Your task to perform on an android device: change text size in settings app Image 0: 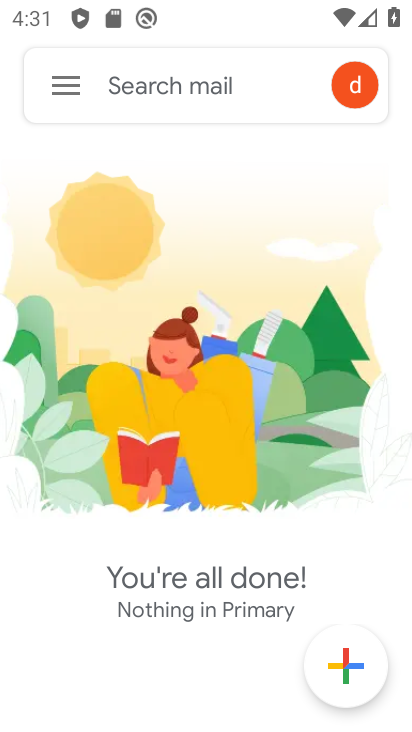
Step 0: press home button
Your task to perform on an android device: change text size in settings app Image 1: 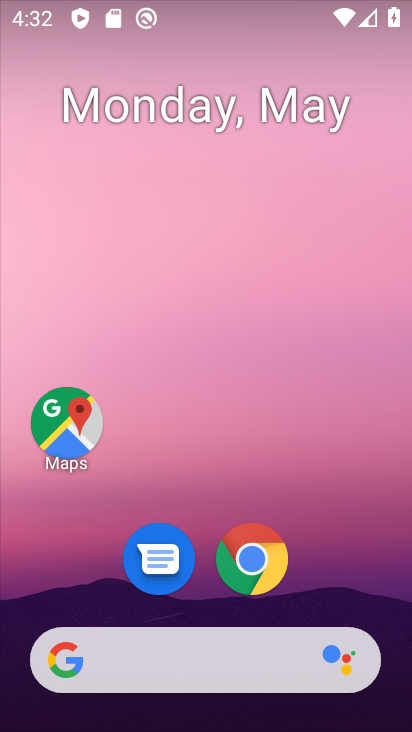
Step 1: drag from (308, 540) to (181, 9)
Your task to perform on an android device: change text size in settings app Image 2: 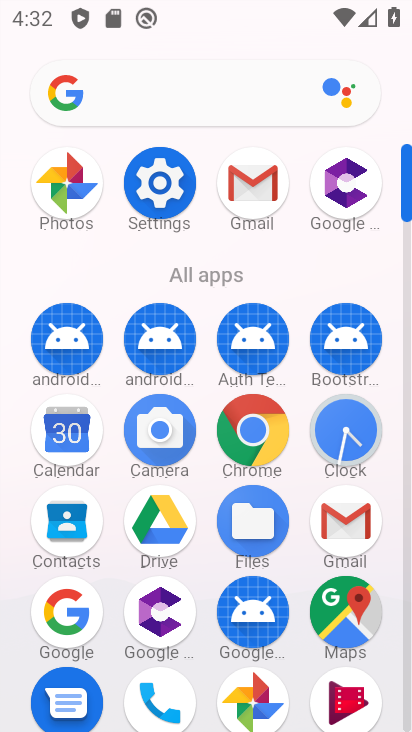
Step 2: click (161, 186)
Your task to perform on an android device: change text size in settings app Image 3: 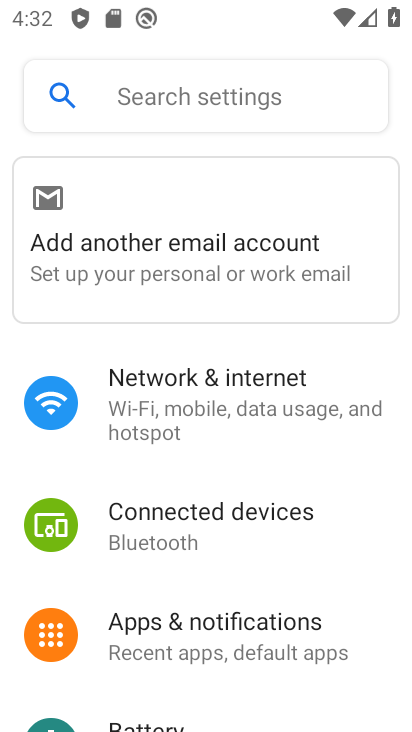
Step 3: drag from (236, 672) to (202, 343)
Your task to perform on an android device: change text size in settings app Image 4: 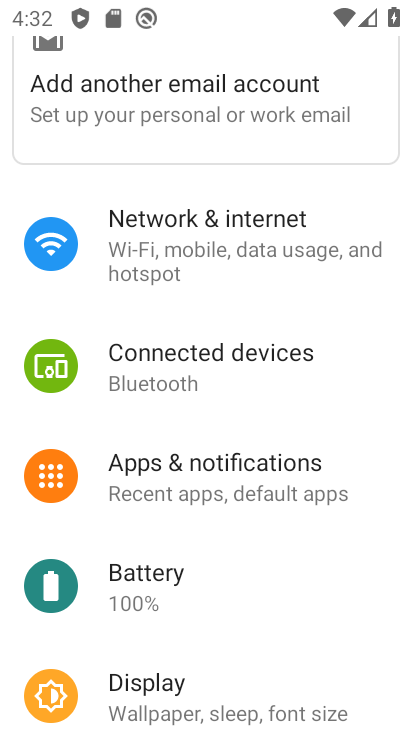
Step 4: click (152, 683)
Your task to perform on an android device: change text size in settings app Image 5: 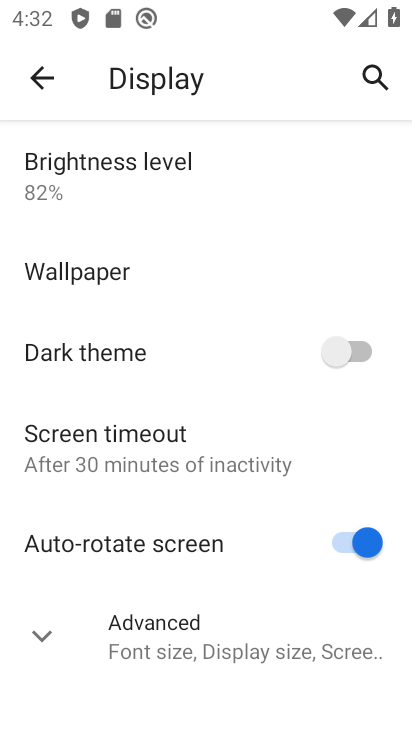
Step 5: click (131, 648)
Your task to perform on an android device: change text size in settings app Image 6: 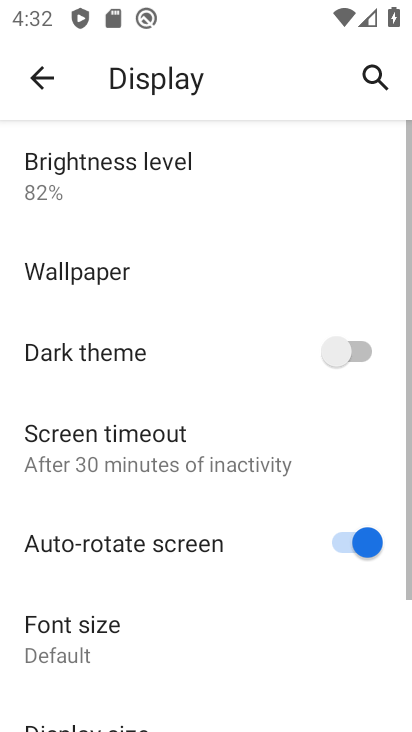
Step 6: drag from (241, 583) to (171, 269)
Your task to perform on an android device: change text size in settings app Image 7: 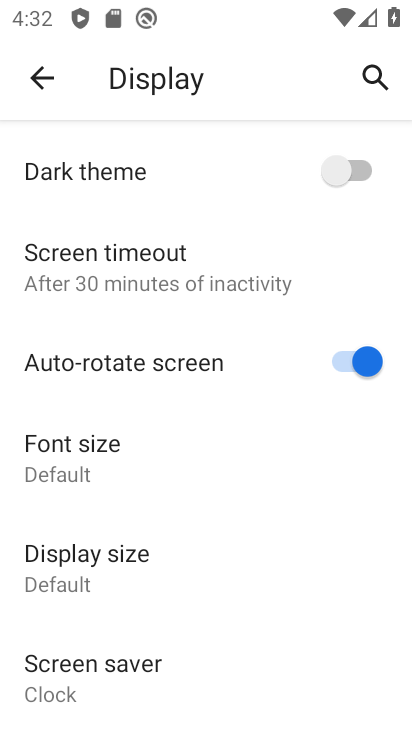
Step 7: click (78, 435)
Your task to perform on an android device: change text size in settings app Image 8: 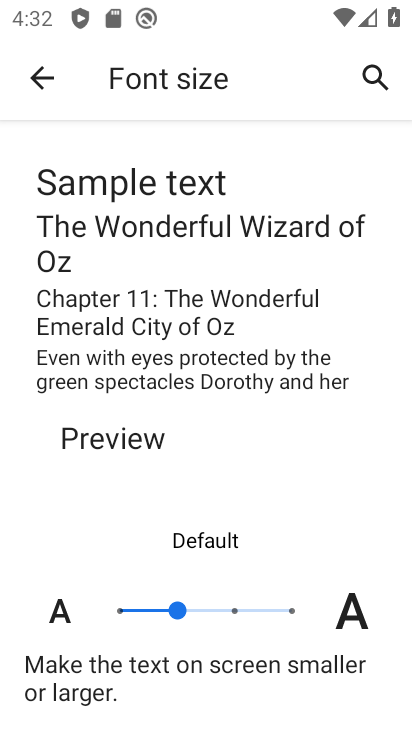
Step 8: click (222, 606)
Your task to perform on an android device: change text size in settings app Image 9: 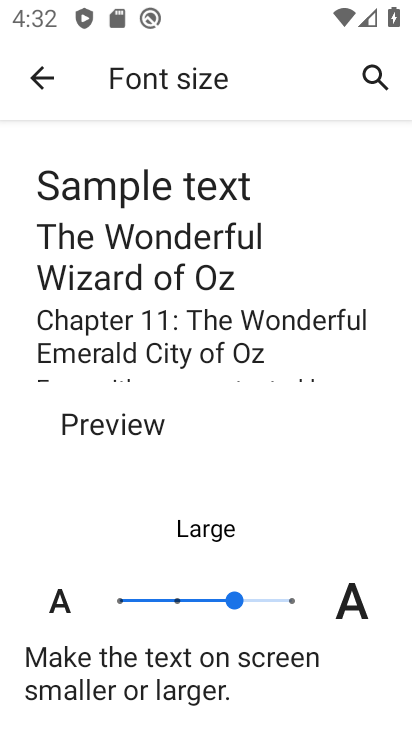
Step 9: task complete